Your task to perform on an android device: empty trash in google photos Image 0: 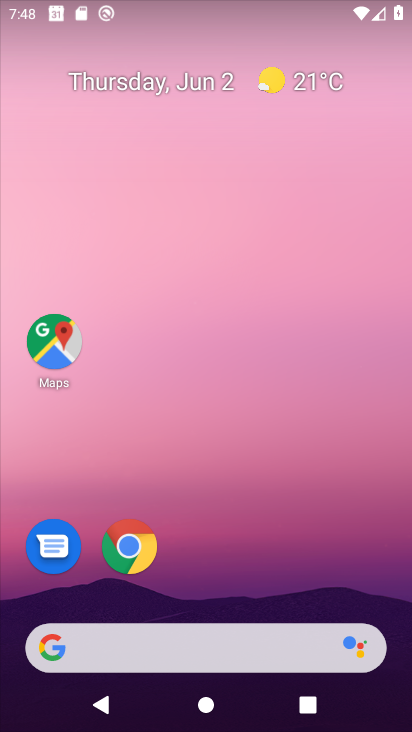
Step 0: drag from (225, 583) to (206, 75)
Your task to perform on an android device: empty trash in google photos Image 1: 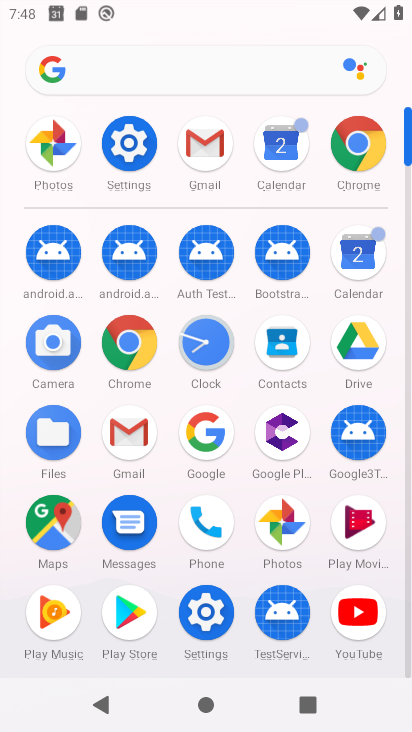
Step 1: click (279, 538)
Your task to perform on an android device: empty trash in google photos Image 2: 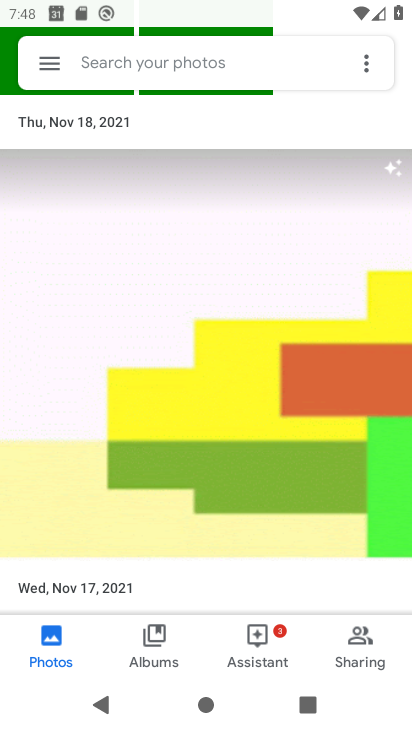
Step 2: click (43, 69)
Your task to perform on an android device: empty trash in google photos Image 3: 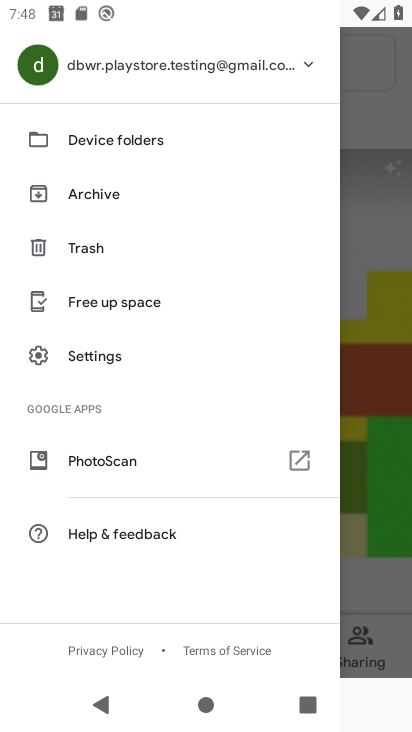
Step 3: click (98, 256)
Your task to perform on an android device: empty trash in google photos Image 4: 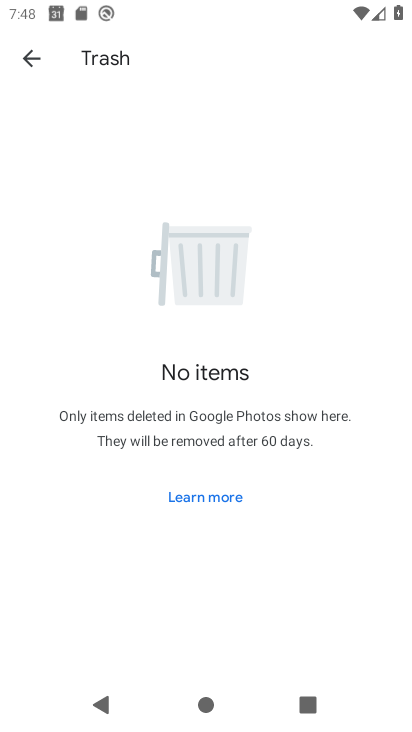
Step 4: task complete